Your task to perform on an android device: turn pop-ups off in chrome Image 0: 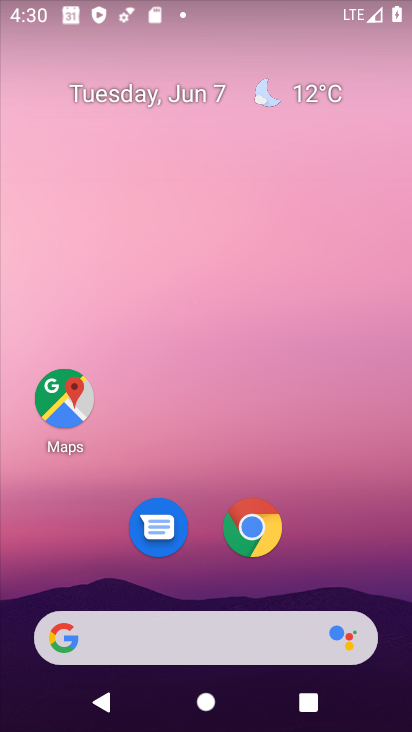
Step 0: click (252, 526)
Your task to perform on an android device: turn pop-ups off in chrome Image 1: 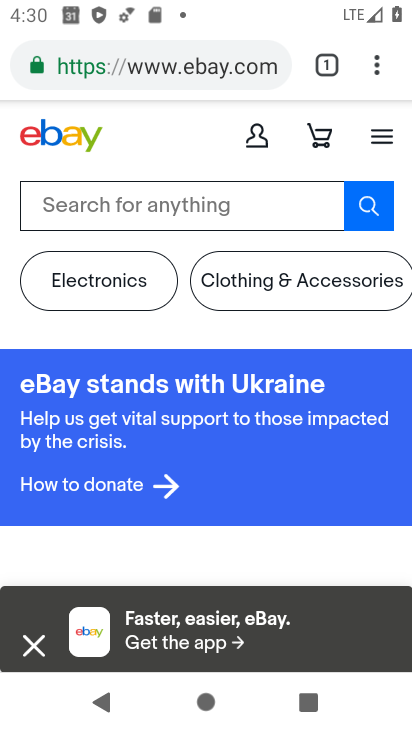
Step 1: click (378, 65)
Your task to perform on an android device: turn pop-ups off in chrome Image 2: 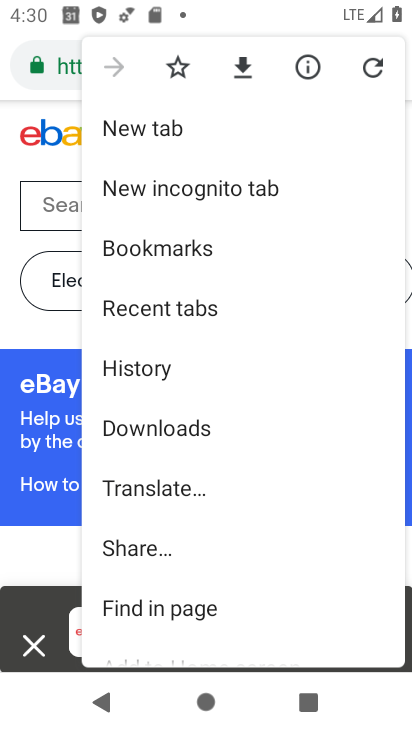
Step 2: drag from (179, 523) to (192, 374)
Your task to perform on an android device: turn pop-ups off in chrome Image 3: 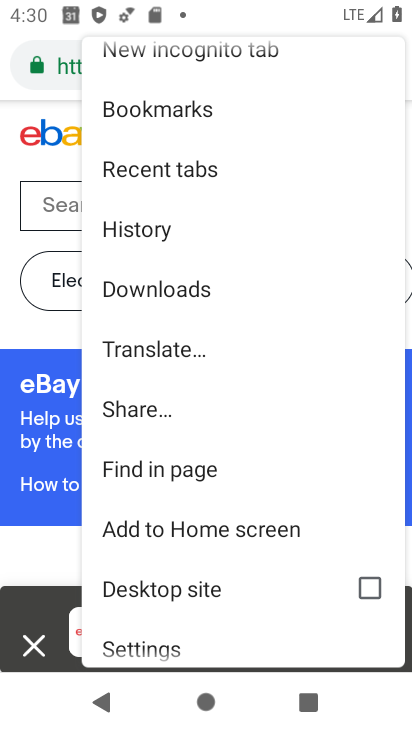
Step 3: drag from (155, 560) to (189, 441)
Your task to perform on an android device: turn pop-ups off in chrome Image 4: 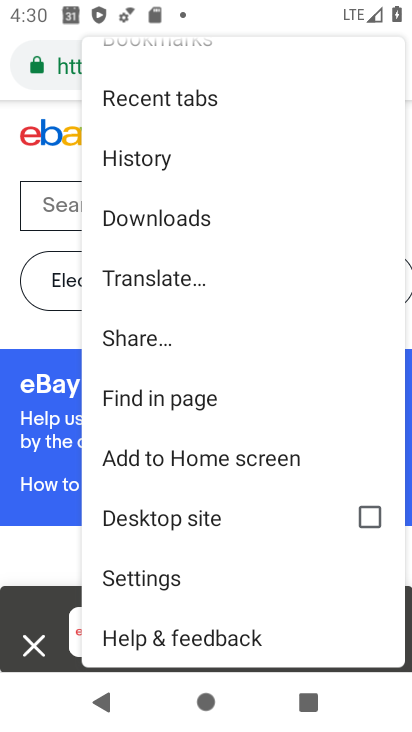
Step 4: click (151, 588)
Your task to perform on an android device: turn pop-ups off in chrome Image 5: 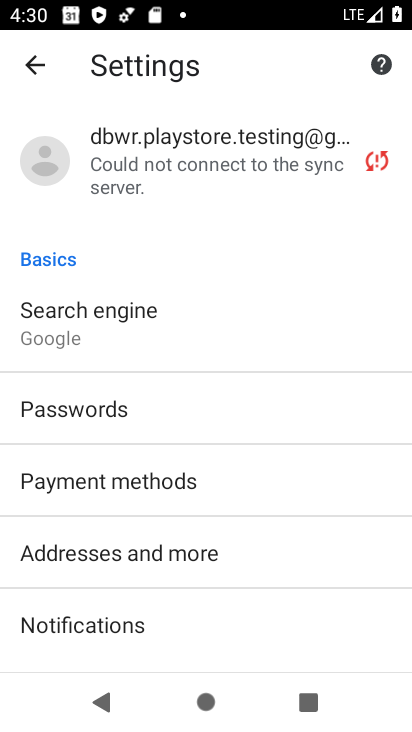
Step 5: drag from (222, 495) to (237, 349)
Your task to perform on an android device: turn pop-ups off in chrome Image 6: 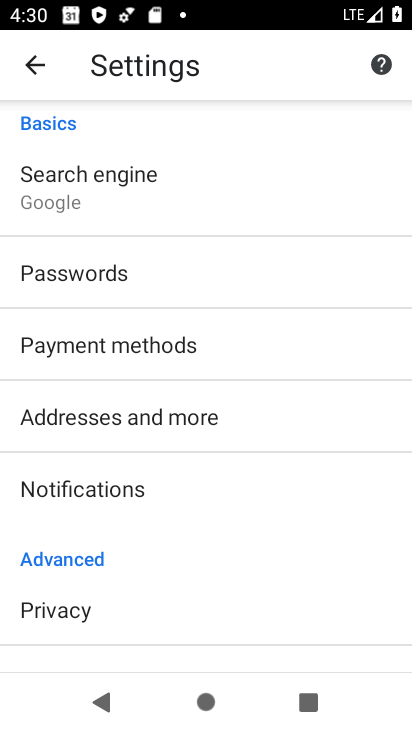
Step 6: drag from (150, 536) to (163, 388)
Your task to perform on an android device: turn pop-ups off in chrome Image 7: 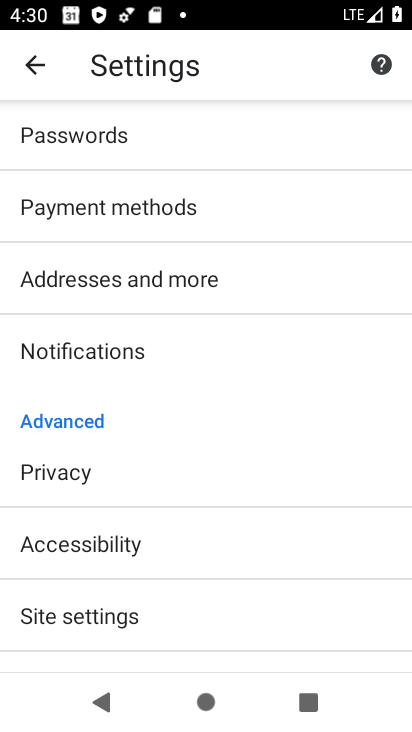
Step 7: drag from (195, 543) to (186, 373)
Your task to perform on an android device: turn pop-ups off in chrome Image 8: 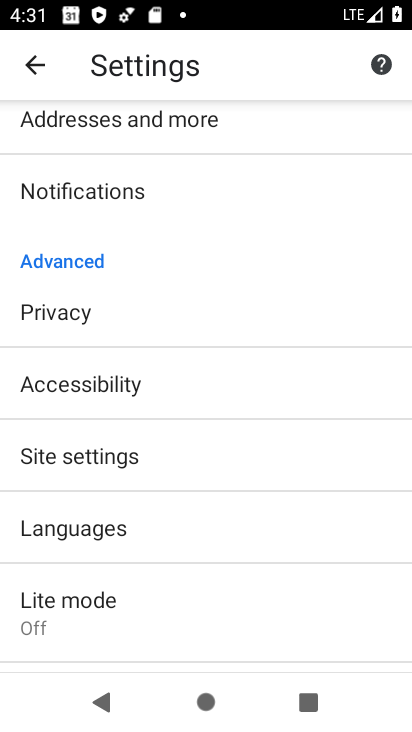
Step 8: click (98, 463)
Your task to perform on an android device: turn pop-ups off in chrome Image 9: 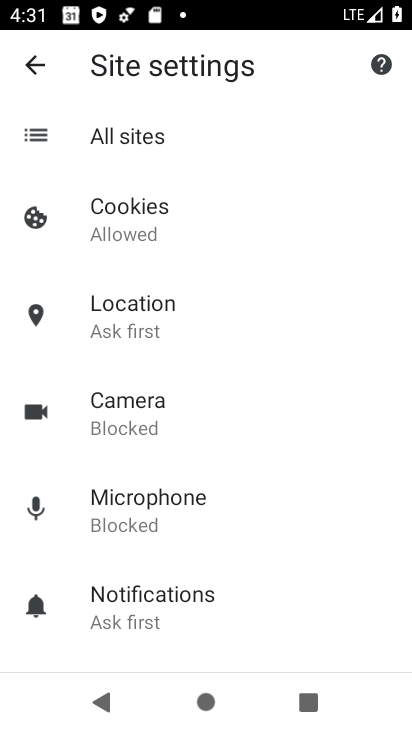
Step 9: drag from (157, 461) to (155, 376)
Your task to perform on an android device: turn pop-ups off in chrome Image 10: 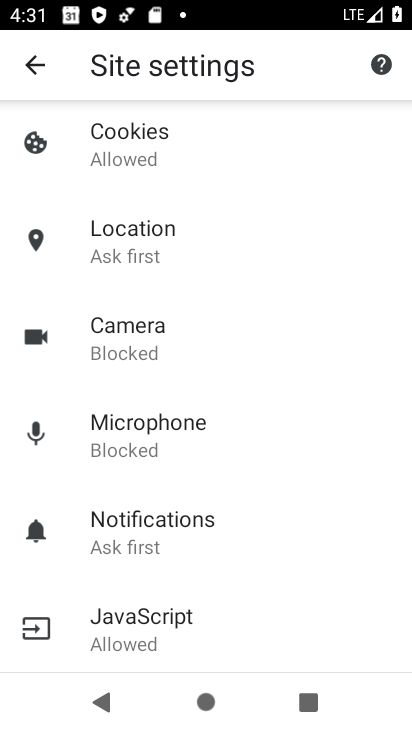
Step 10: drag from (169, 482) to (190, 397)
Your task to perform on an android device: turn pop-ups off in chrome Image 11: 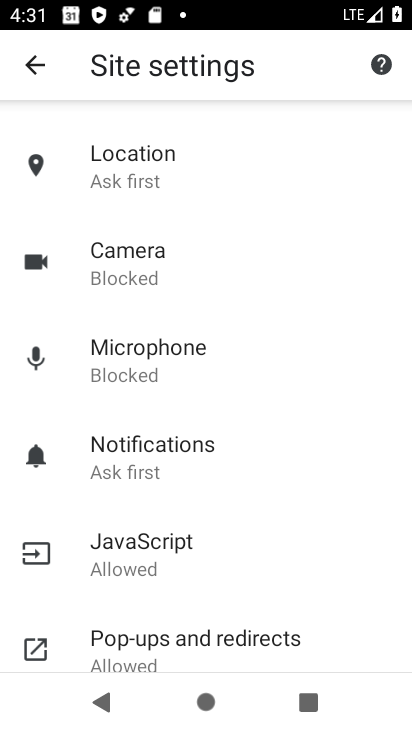
Step 11: drag from (196, 590) to (227, 448)
Your task to perform on an android device: turn pop-ups off in chrome Image 12: 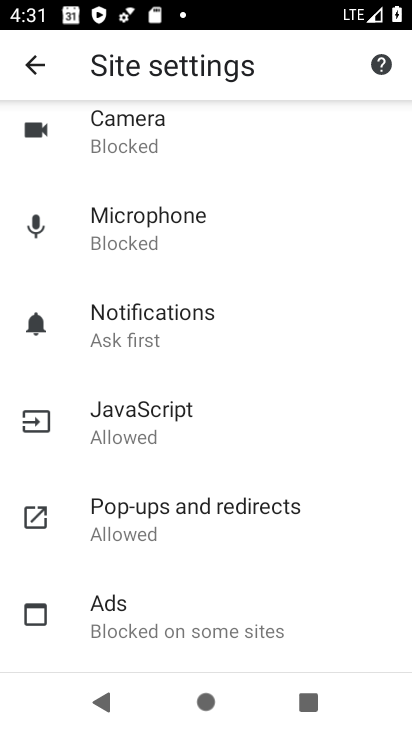
Step 12: click (216, 508)
Your task to perform on an android device: turn pop-ups off in chrome Image 13: 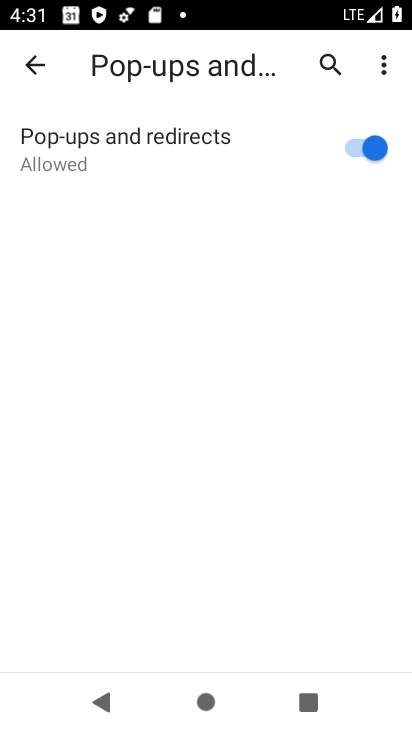
Step 13: click (371, 142)
Your task to perform on an android device: turn pop-ups off in chrome Image 14: 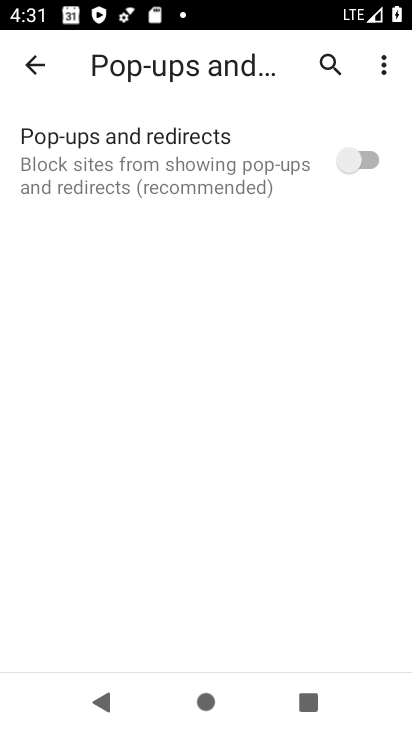
Step 14: task complete